Your task to perform on an android device: Show the shopping cart on newegg.com. Add razer blade to the cart on newegg.com Image 0: 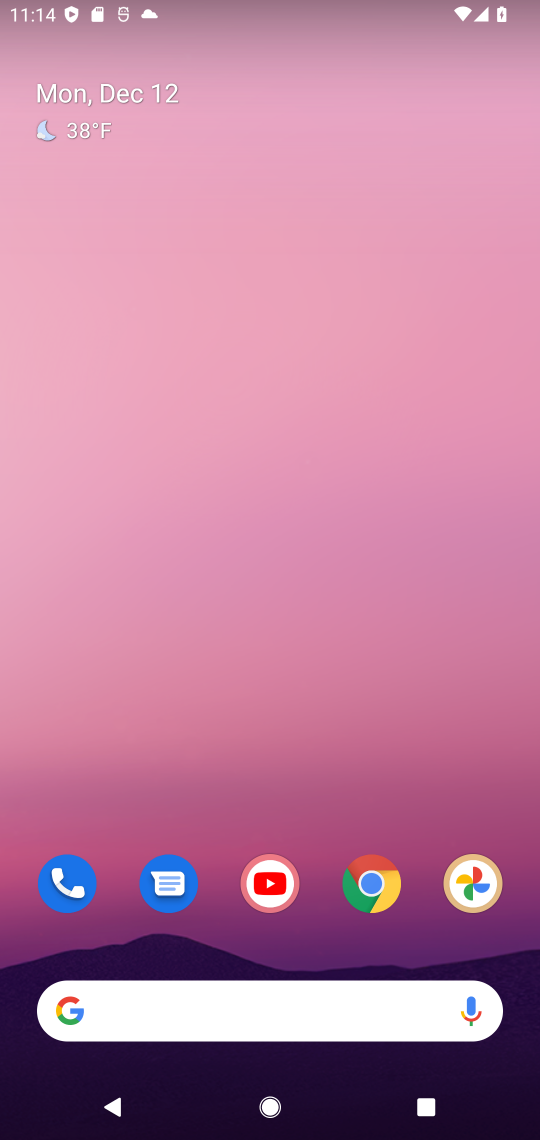
Step 0: drag from (252, 820) to (212, 346)
Your task to perform on an android device: Show the shopping cart on newegg.com. Add razer blade to the cart on newegg.com Image 1: 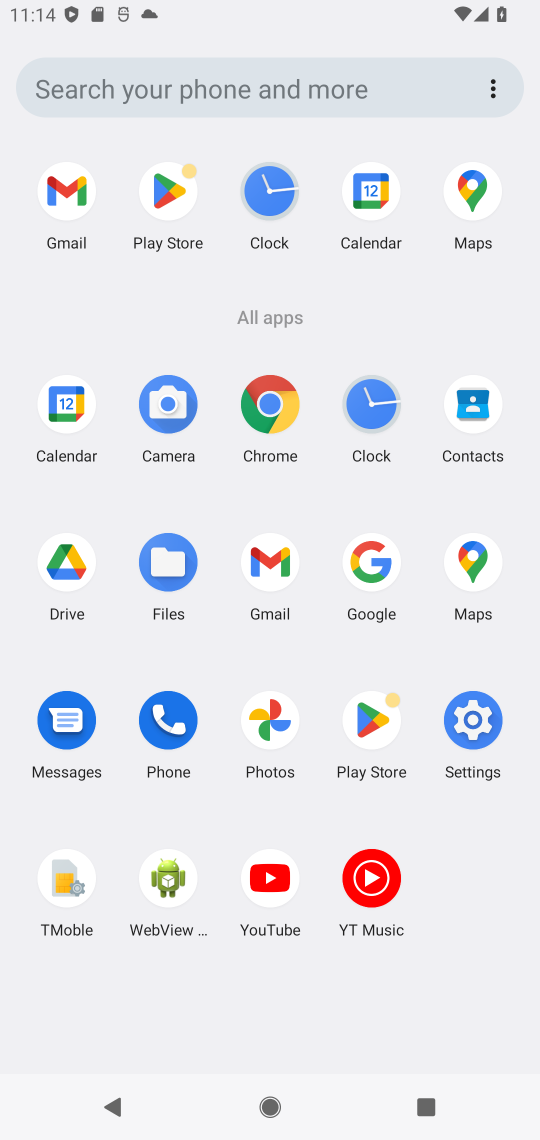
Step 1: click (383, 581)
Your task to perform on an android device: Show the shopping cart on newegg.com. Add razer blade to the cart on newegg.com Image 2: 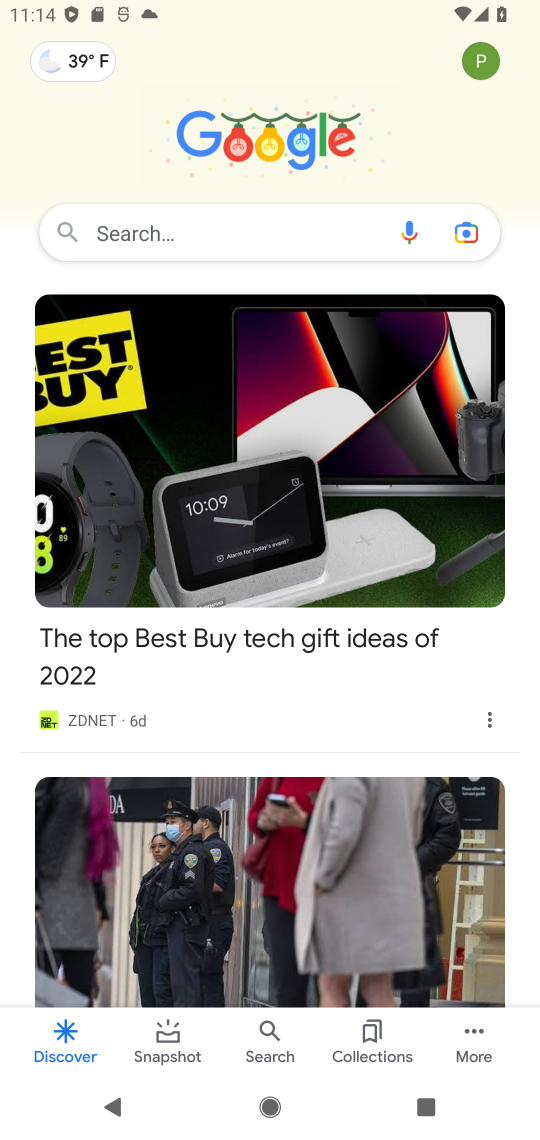
Step 2: click (181, 216)
Your task to perform on an android device: Show the shopping cart on newegg.com. Add razer blade to the cart on newegg.com Image 3: 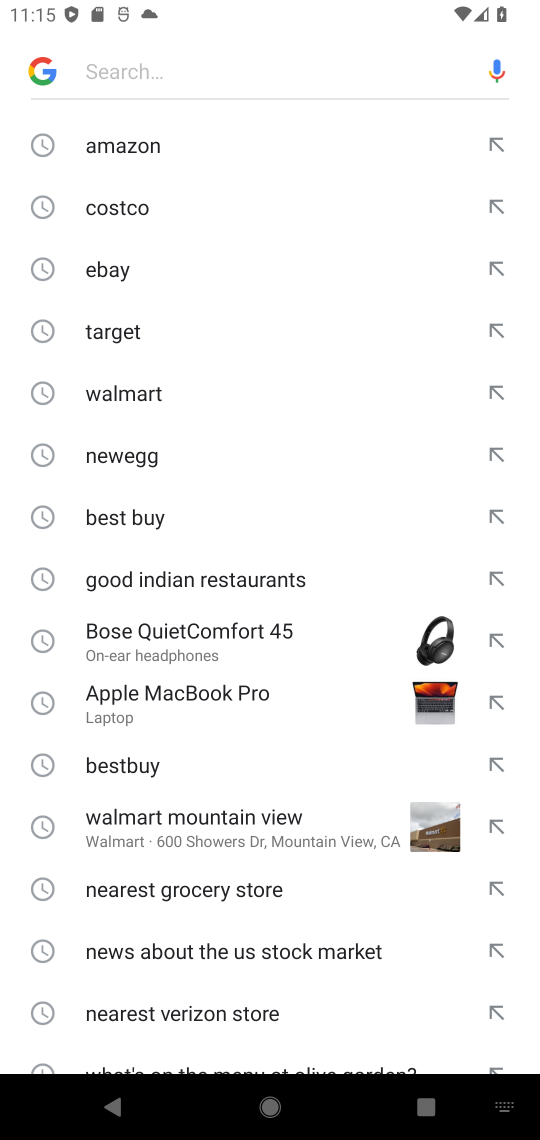
Step 3: type "newegg.com"
Your task to perform on an android device: Show the shopping cart on newegg.com. Add razer blade to the cart on newegg.com Image 4: 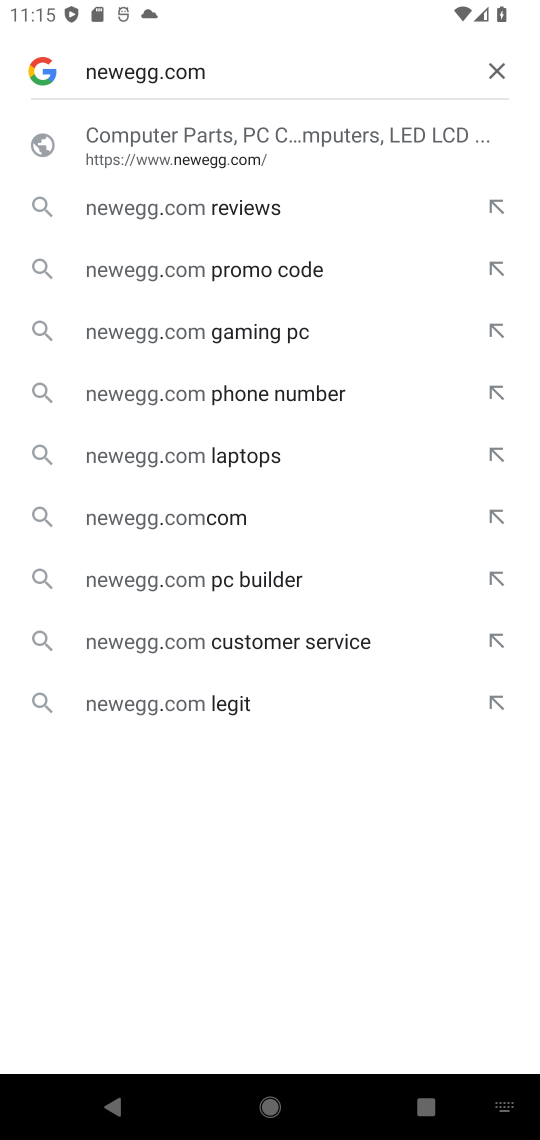
Step 4: click (216, 160)
Your task to perform on an android device: Show the shopping cart on newegg.com. Add razer blade to the cart on newegg.com Image 5: 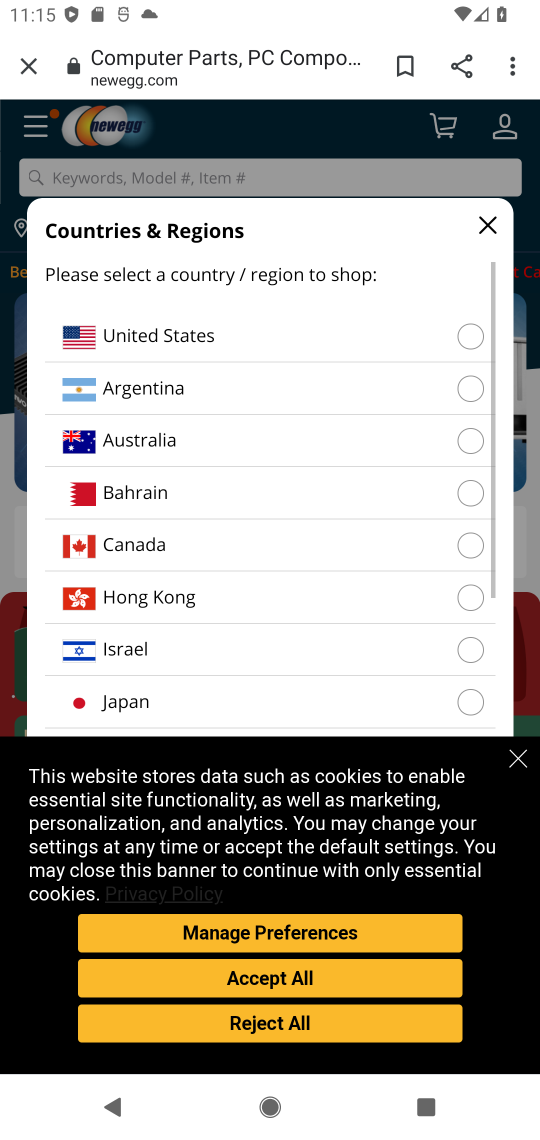
Step 5: click (519, 754)
Your task to perform on an android device: Show the shopping cart on newegg.com. Add razer blade to the cart on newegg.com Image 6: 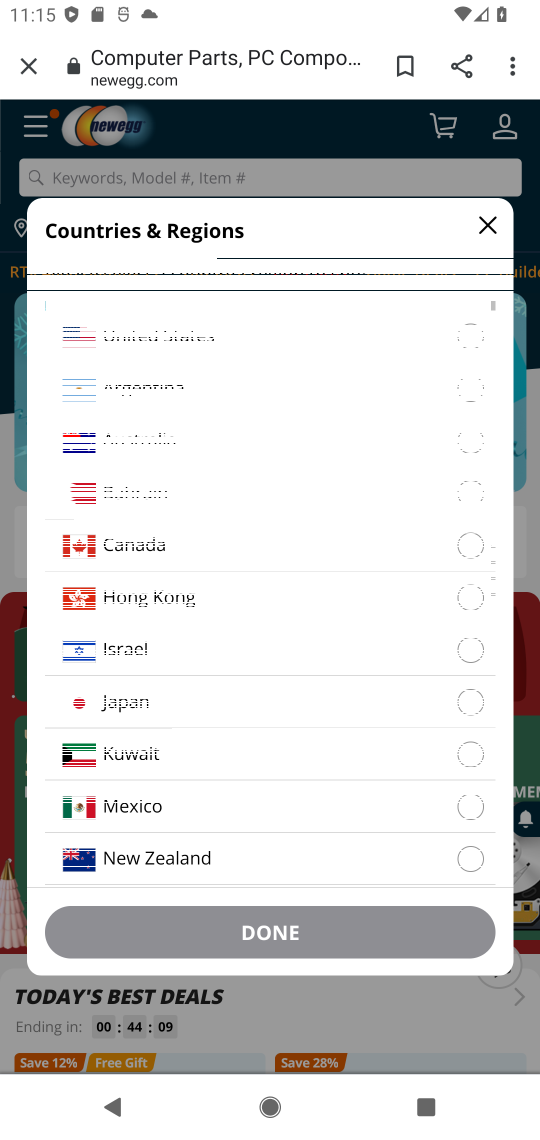
Step 6: click (476, 345)
Your task to perform on an android device: Show the shopping cart on newegg.com. Add razer blade to the cart on newegg.com Image 7: 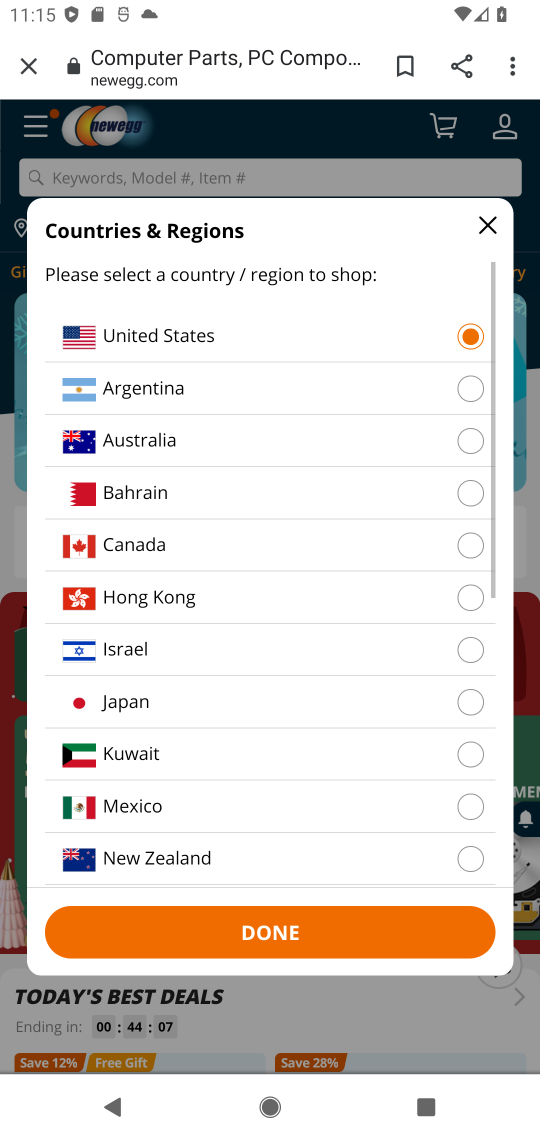
Step 7: click (254, 936)
Your task to perform on an android device: Show the shopping cart on newegg.com. Add razer blade to the cart on newegg.com Image 8: 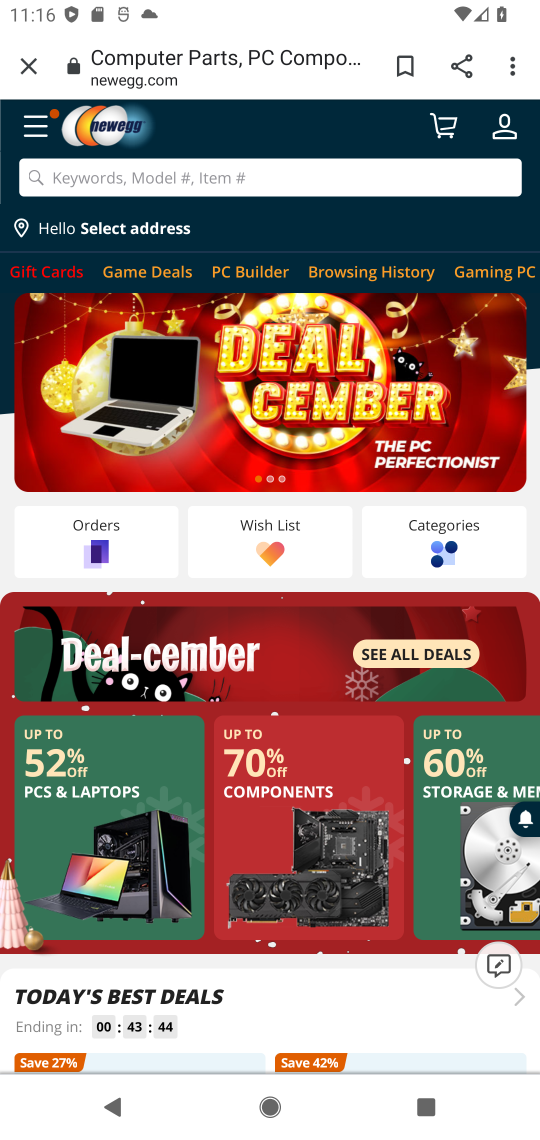
Step 8: click (441, 129)
Your task to perform on an android device: Show the shopping cart on newegg.com. Add razer blade to the cart on newegg.com Image 9: 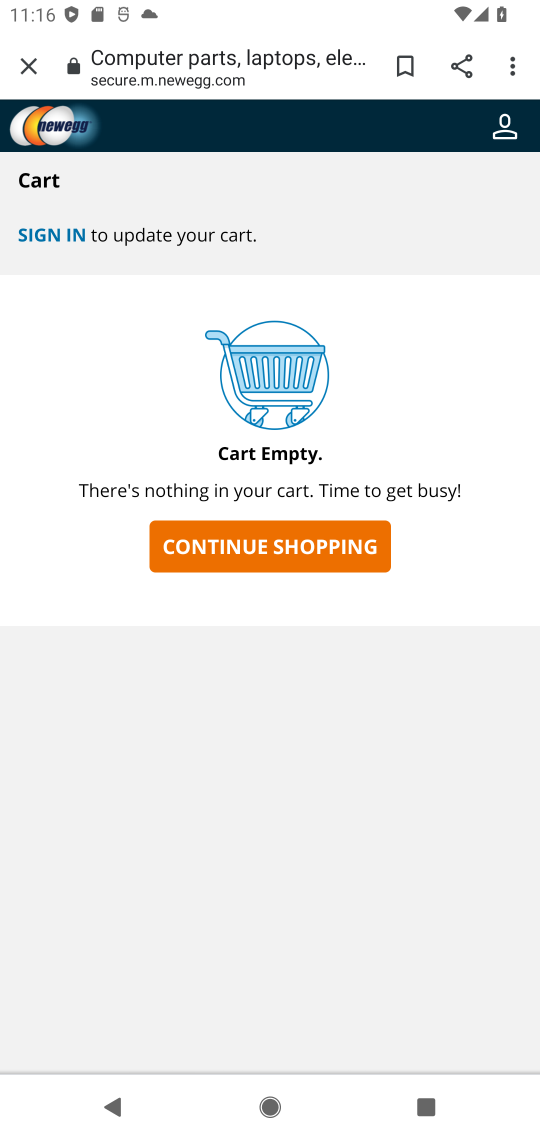
Step 9: task complete